Your task to perform on an android device: change the clock display to show seconds Image 0: 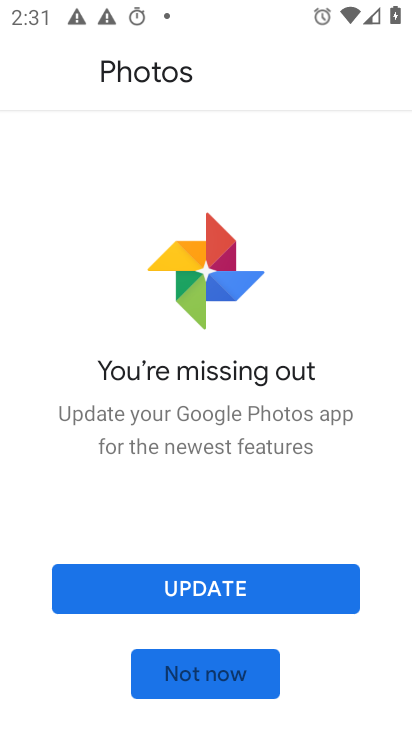
Step 0: press home button
Your task to perform on an android device: change the clock display to show seconds Image 1: 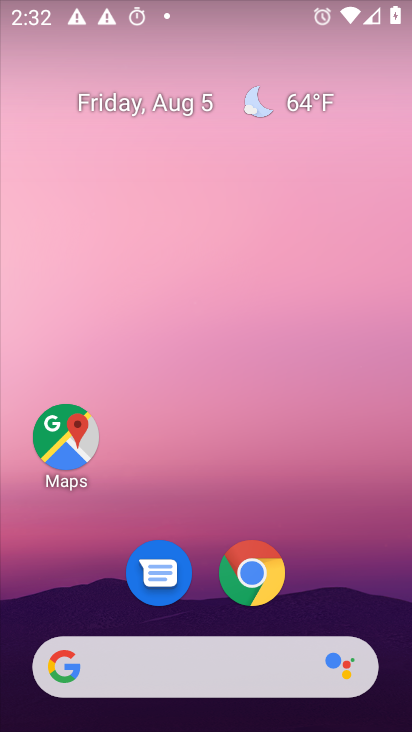
Step 1: drag from (379, 602) to (373, 222)
Your task to perform on an android device: change the clock display to show seconds Image 2: 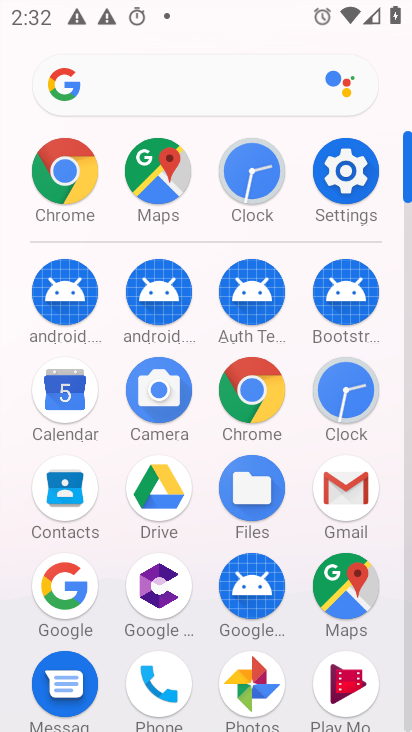
Step 2: click (342, 387)
Your task to perform on an android device: change the clock display to show seconds Image 3: 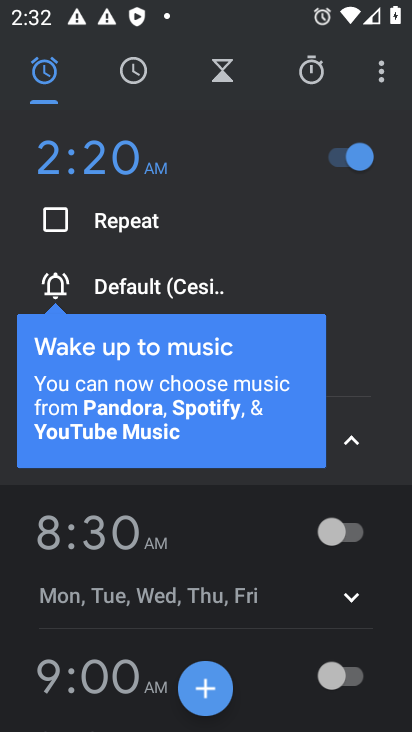
Step 3: click (382, 79)
Your task to perform on an android device: change the clock display to show seconds Image 4: 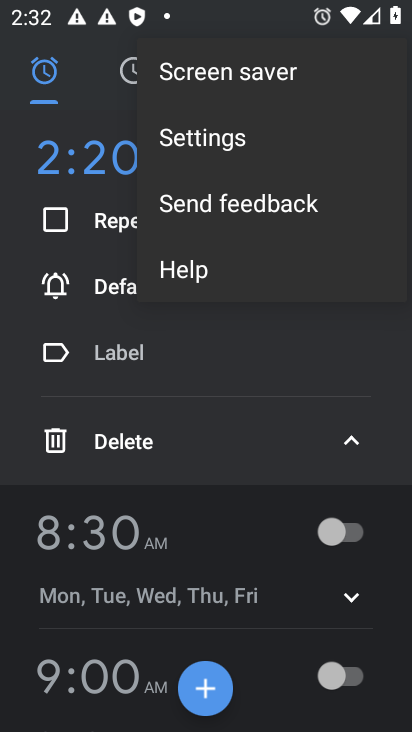
Step 4: click (257, 143)
Your task to perform on an android device: change the clock display to show seconds Image 5: 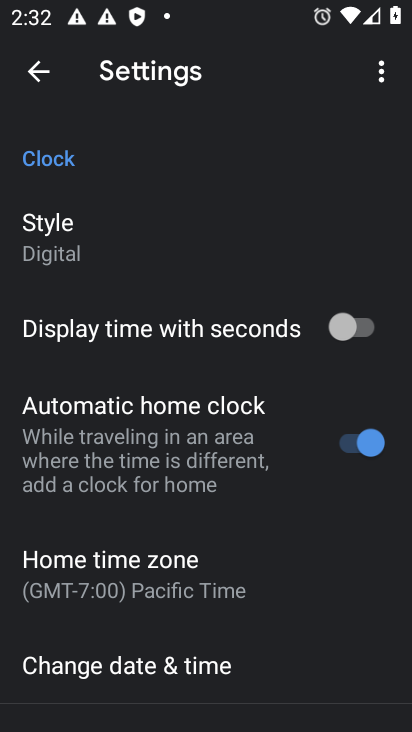
Step 5: click (343, 334)
Your task to perform on an android device: change the clock display to show seconds Image 6: 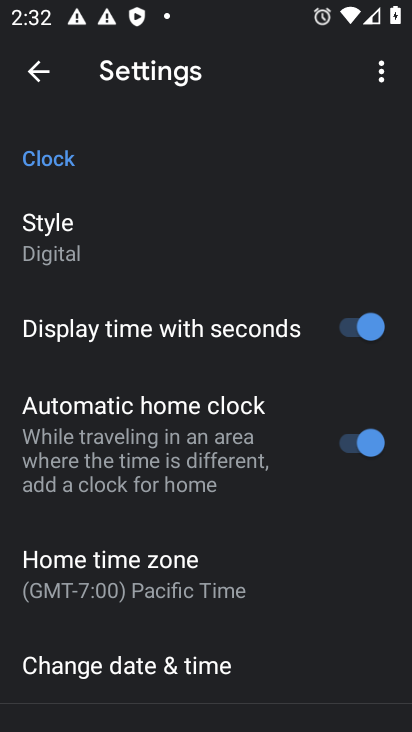
Step 6: task complete